Your task to perform on an android device: Show me recent news Image 0: 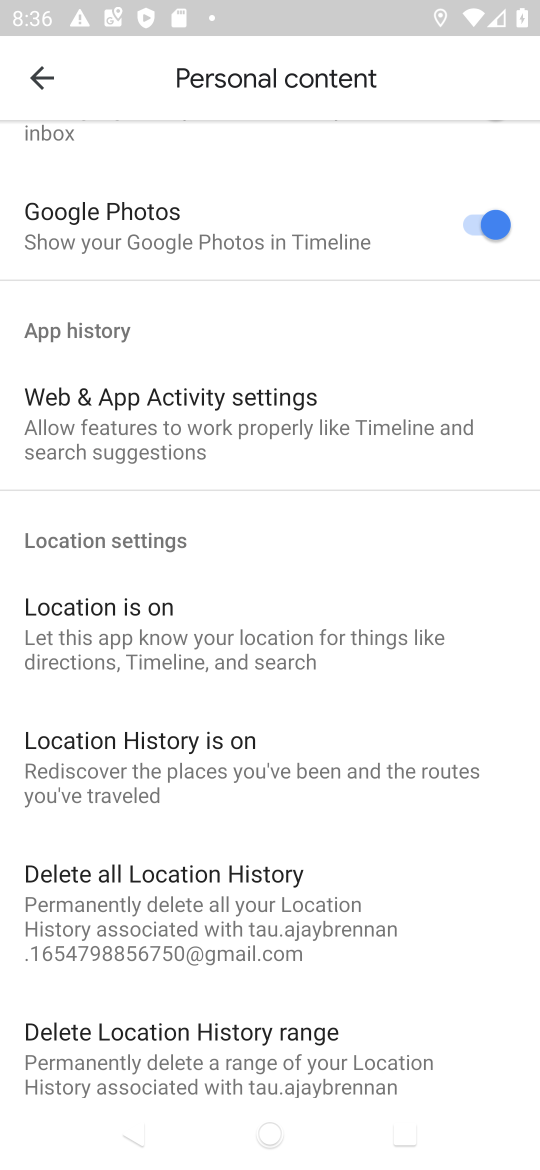
Step 0: press home button
Your task to perform on an android device: Show me recent news Image 1: 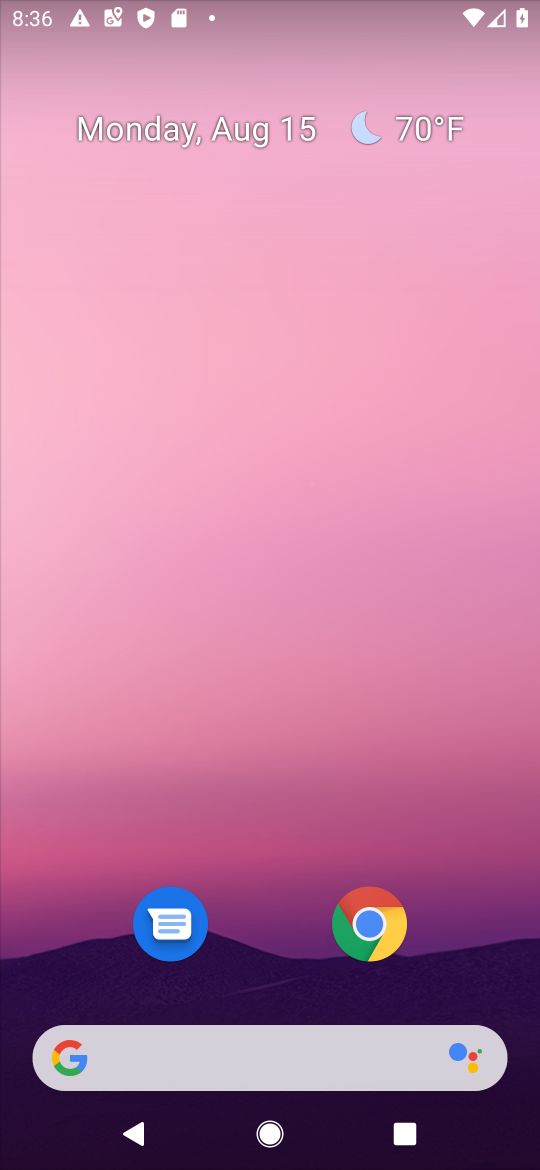
Step 1: task complete